Your task to perform on an android device: Show me the alarms in the clock app Image 0: 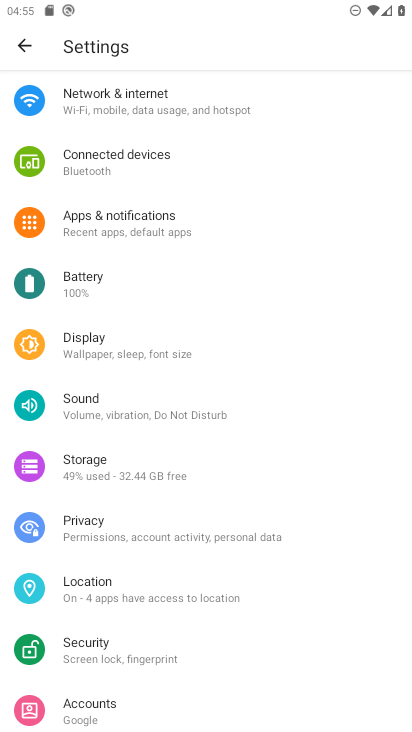
Step 0: press home button
Your task to perform on an android device: Show me the alarms in the clock app Image 1: 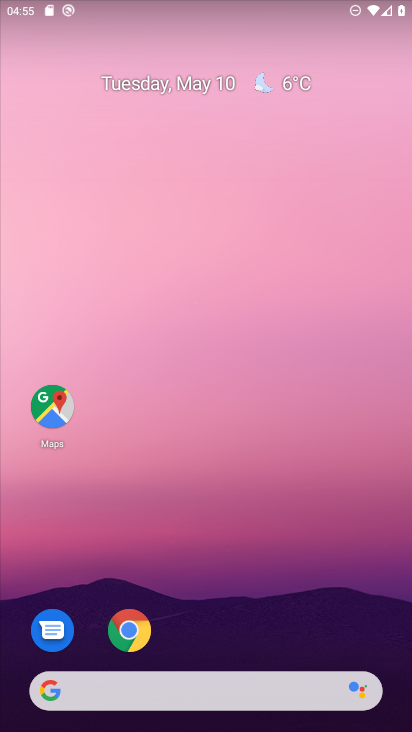
Step 1: drag from (229, 623) to (240, 133)
Your task to perform on an android device: Show me the alarms in the clock app Image 2: 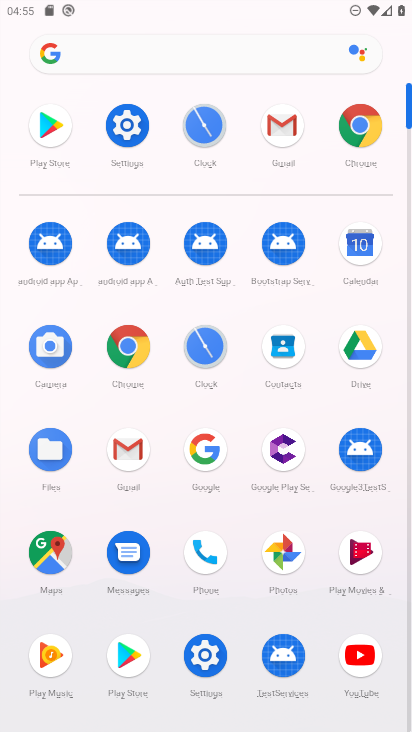
Step 2: click (205, 145)
Your task to perform on an android device: Show me the alarms in the clock app Image 3: 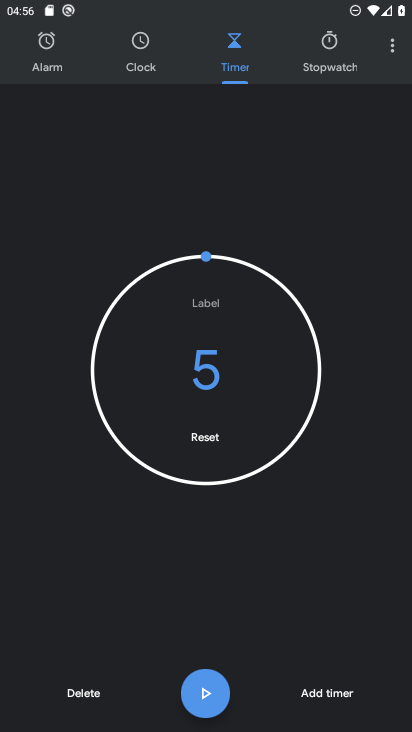
Step 3: click (46, 42)
Your task to perform on an android device: Show me the alarms in the clock app Image 4: 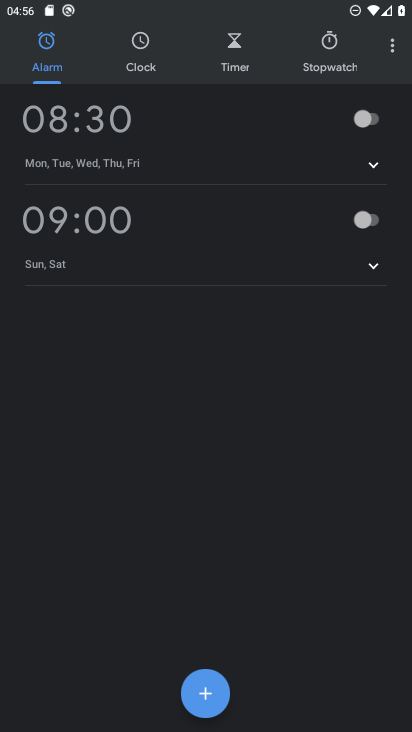
Step 4: task complete